Your task to perform on an android device: Open the calendar app, open the side menu, and click the "Day" option Image 0: 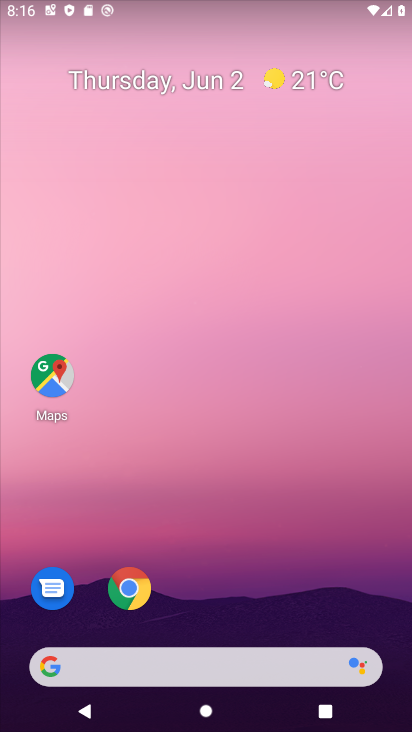
Step 0: drag from (194, 666) to (242, 199)
Your task to perform on an android device: Open the calendar app, open the side menu, and click the "Day" option Image 1: 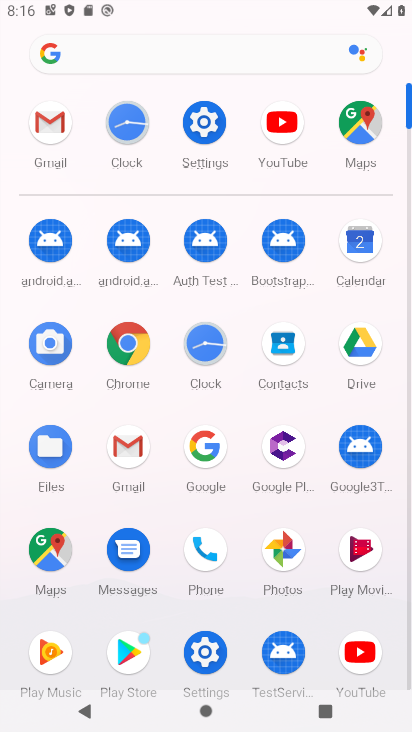
Step 1: click (360, 259)
Your task to perform on an android device: Open the calendar app, open the side menu, and click the "Day" option Image 2: 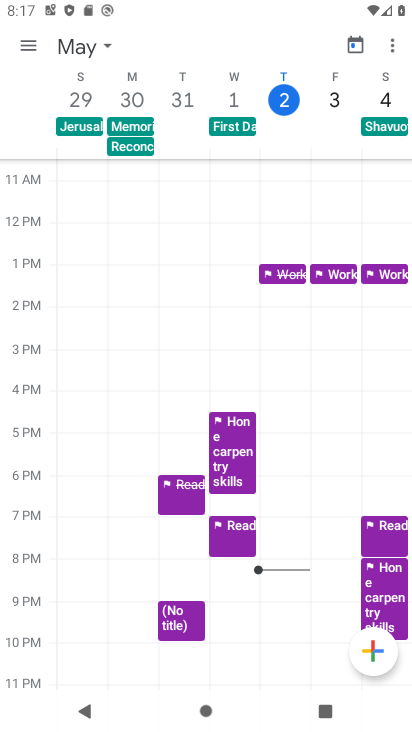
Step 2: click (32, 51)
Your task to perform on an android device: Open the calendar app, open the side menu, and click the "Day" option Image 3: 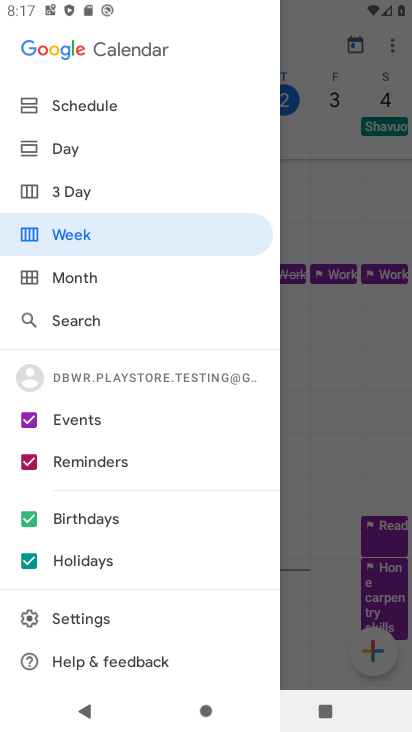
Step 3: click (74, 146)
Your task to perform on an android device: Open the calendar app, open the side menu, and click the "Day" option Image 4: 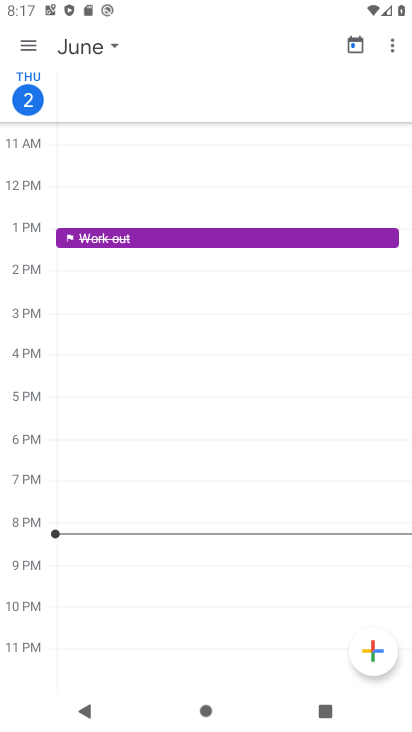
Step 4: task complete